Your task to perform on an android device: Open my contact list Image 0: 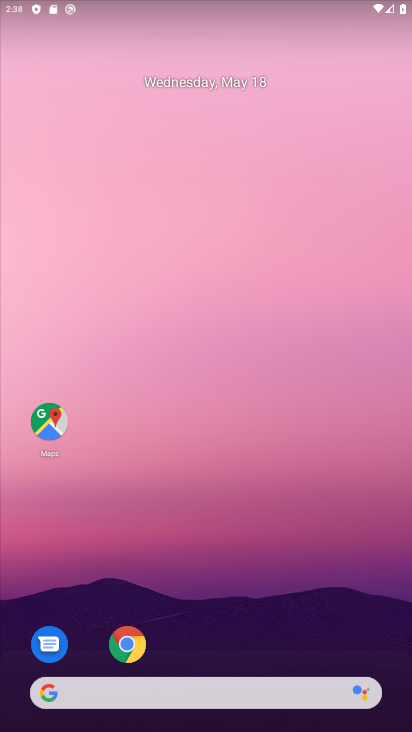
Step 0: drag from (212, 646) to (212, 259)
Your task to perform on an android device: Open my contact list Image 1: 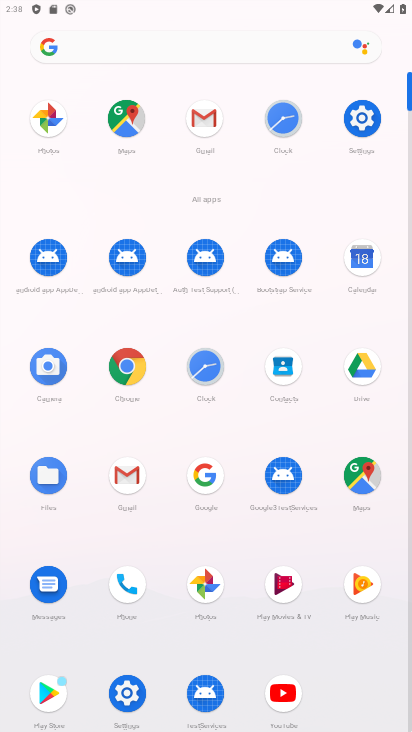
Step 1: click (278, 377)
Your task to perform on an android device: Open my contact list Image 2: 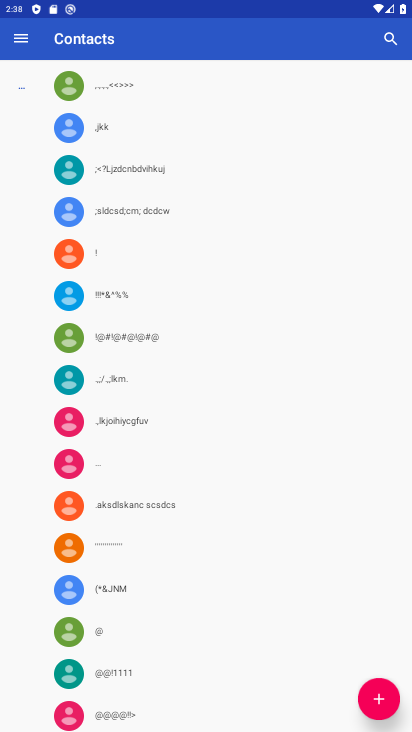
Step 2: task complete